Your task to perform on an android device: turn off smart reply in the gmail app Image 0: 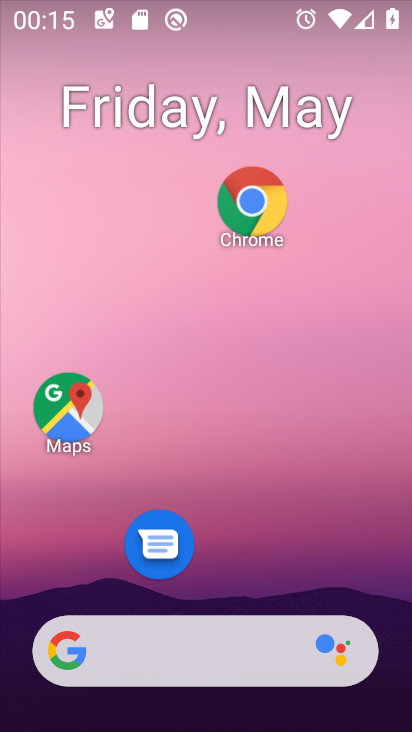
Step 0: drag from (222, 586) to (225, 61)
Your task to perform on an android device: turn off smart reply in the gmail app Image 1: 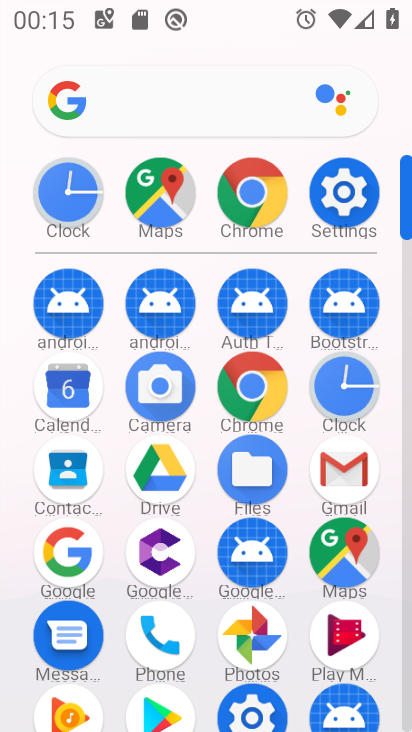
Step 1: click (342, 462)
Your task to perform on an android device: turn off smart reply in the gmail app Image 2: 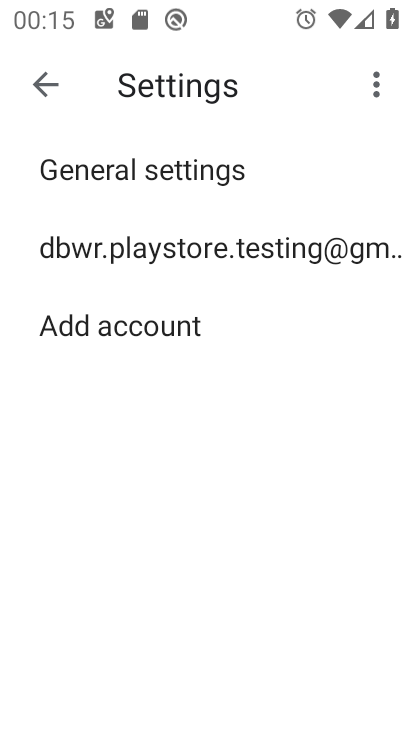
Step 2: click (251, 251)
Your task to perform on an android device: turn off smart reply in the gmail app Image 3: 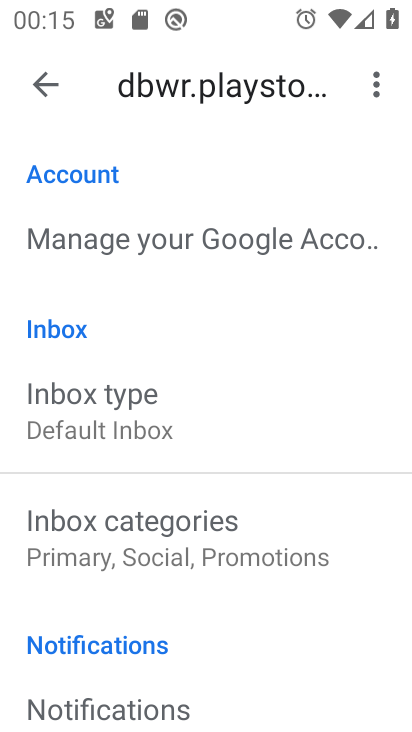
Step 3: drag from (254, 641) to (283, 182)
Your task to perform on an android device: turn off smart reply in the gmail app Image 4: 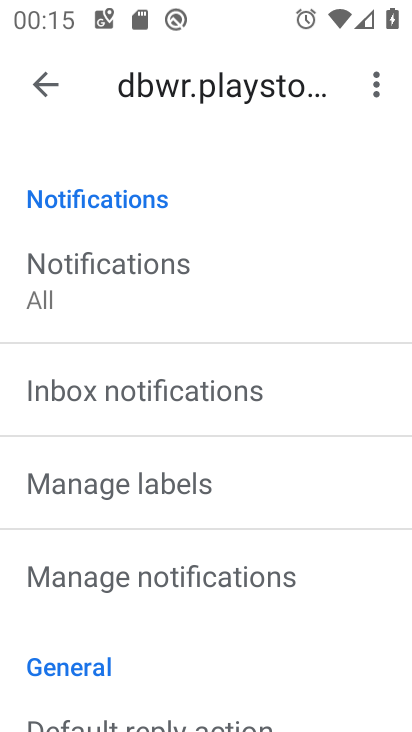
Step 4: drag from (217, 676) to (259, 196)
Your task to perform on an android device: turn off smart reply in the gmail app Image 5: 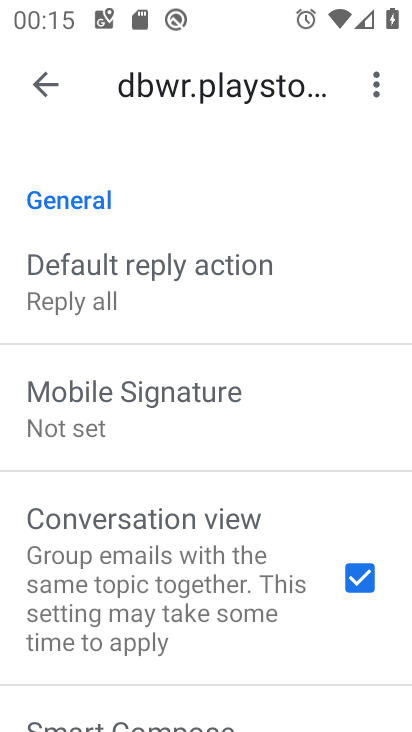
Step 5: drag from (213, 686) to (236, 193)
Your task to perform on an android device: turn off smart reply in the gmail app Image 6: 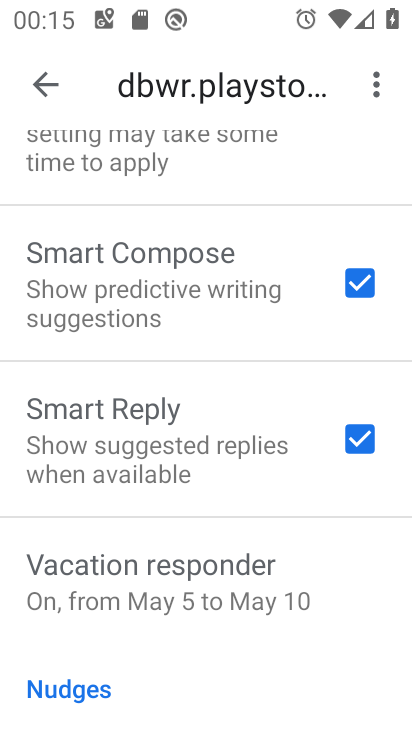
Step 6: click (357, 434)
Your task to perform on an android device: turn off smart reply in the gmail app Image 7: 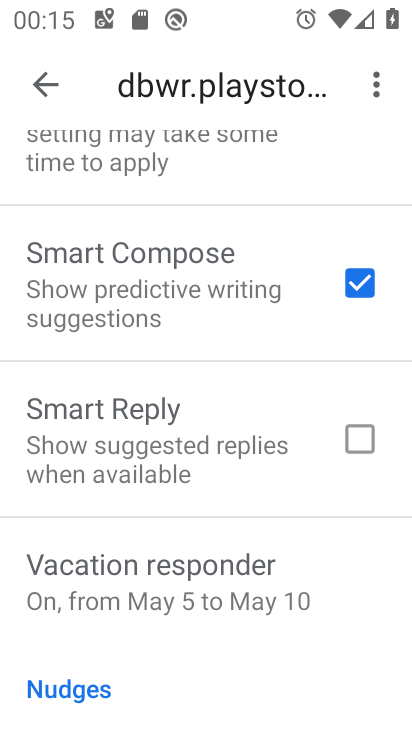
Step 7: task complete